Your task to perform on an android device: clear all cookies in the chrome app Image 0: 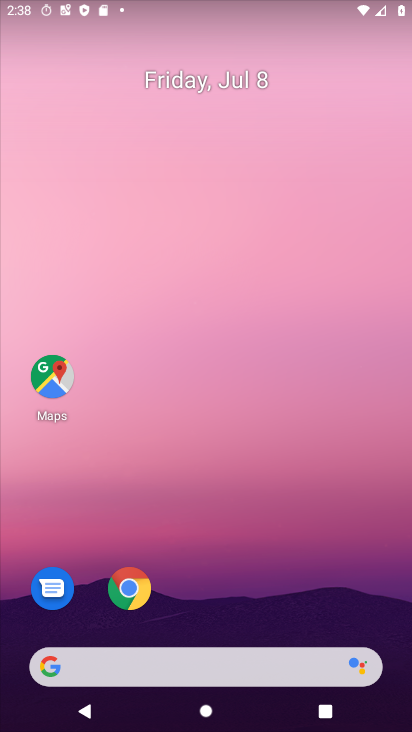
Step 0: drag from (256, 613) to (311, 177)
Your task to perform on an android device: clear all cookies in the chrome app Image 1: 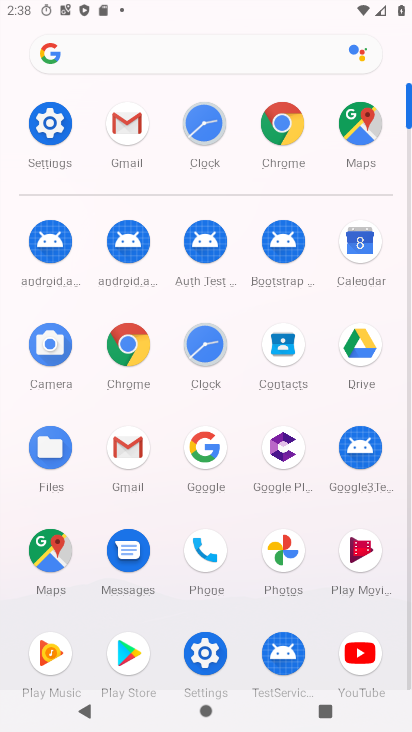
Step 1: click (273, 123)
Your task to perform on an android device: clear all cookies in the chrome app Image 2: 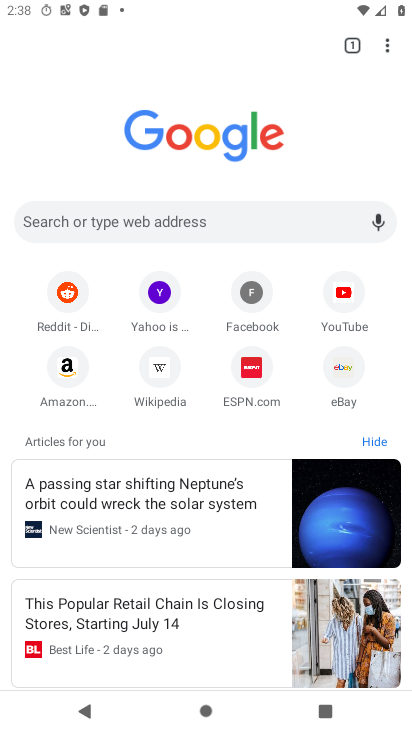
Step 2: drag from (390, 53) to (243, 385)
Your task to perform on an android device: clear all cookies in the chrome app Image 3: 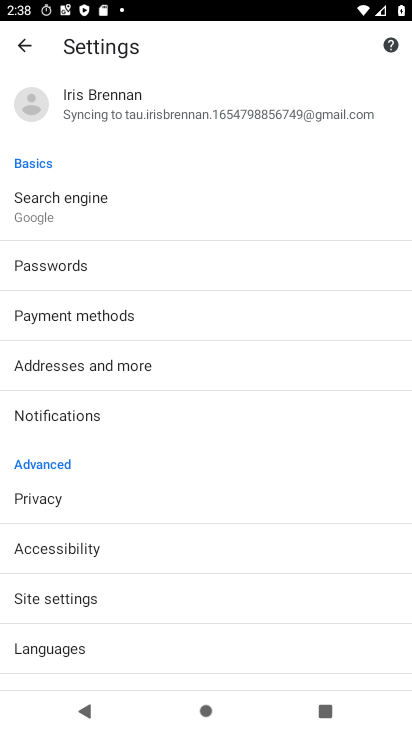
Step 3: click (47, 501)
Your task to perform on an android device: clear all cookies in the chrome app Image 4: 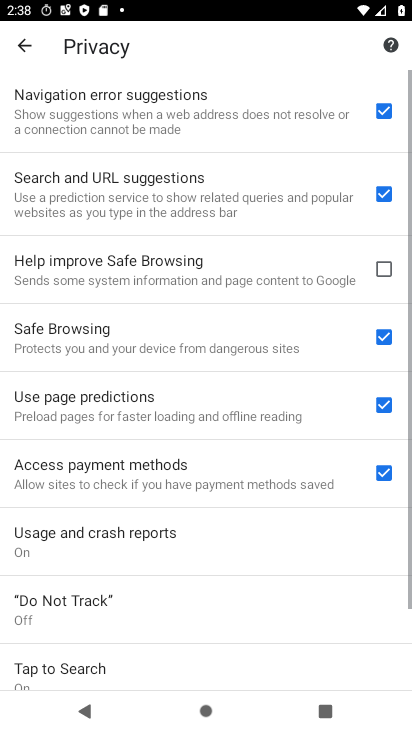
Step 4: drag from (194, 663) to (255, 159)
Your task to perform on an android device: clear all cookies in the chrome app Image 5: 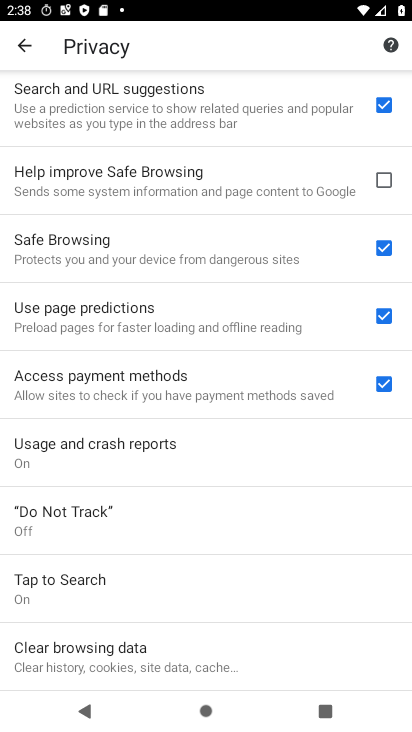
Step 5: click (71, 670)
Your task to perform on an android device: clear all cookies in the chrome app Image 6: 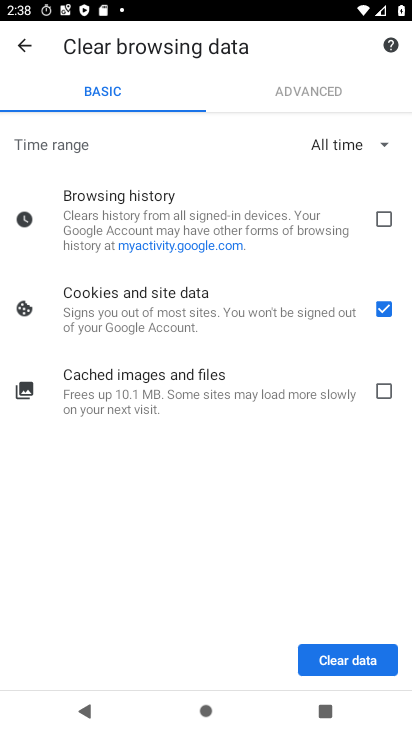
Step 6: click (337, 664)
Your task to perform on an android device: clear all cookies in the chrome app Image 7: 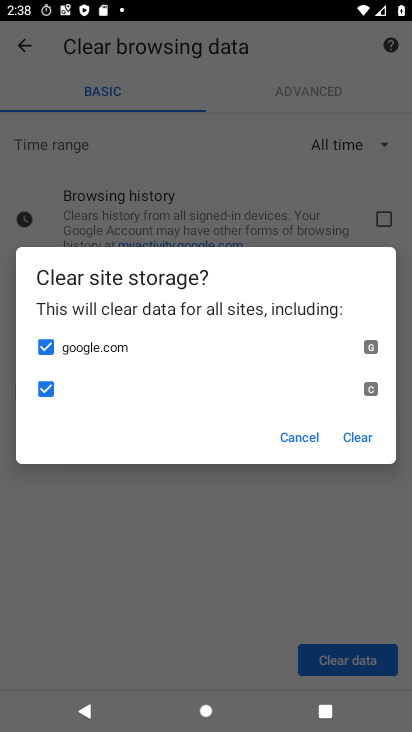
Step 7: click (359, 442)
Your task to perform on an android device: clear all cookies in the chrome app Image 8: 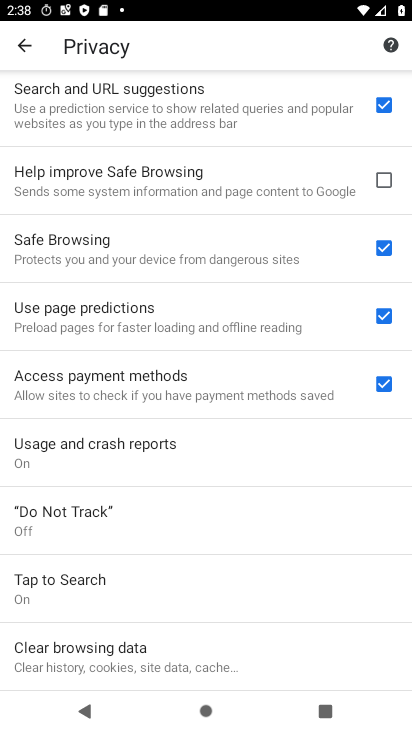
Step 8: task complete